Your task to perform on an android device: open a bookmark in the chrome app Image 0: 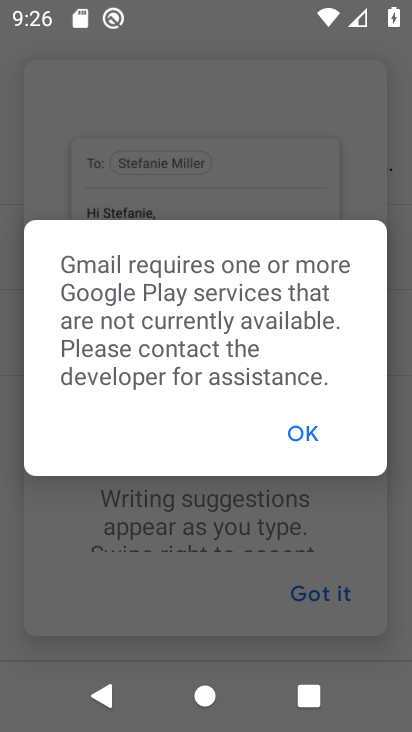
Step 0: press home button
Your task to perform on an android device: open a bookmark in the chrome app Image 1: 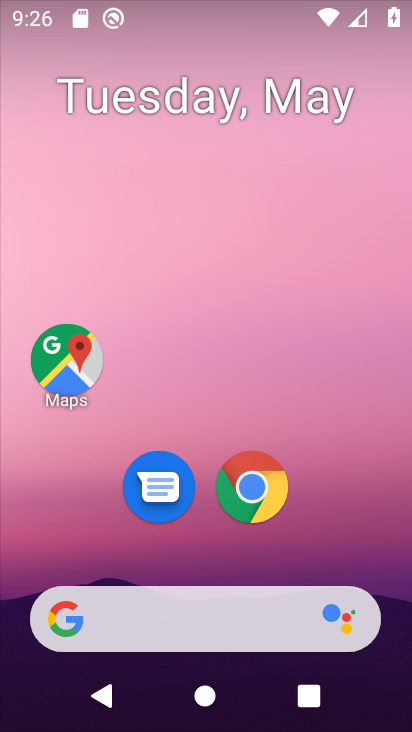
Step 1: click (253, 489)
Your task to perform on an android device: open a bookmark in the chrome app Image 2: 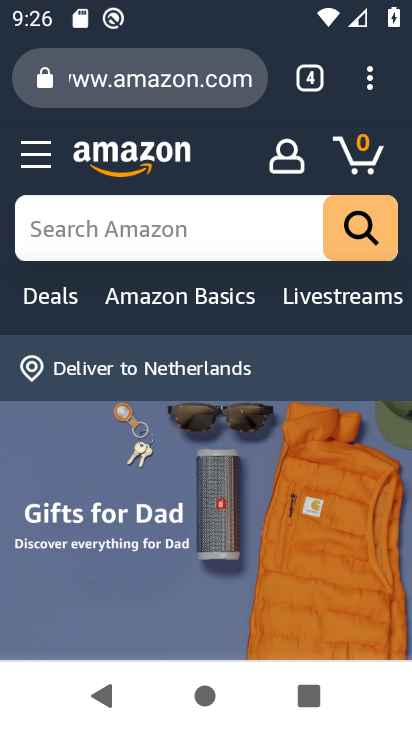
Step 2: task complete